Your task to perform on an android device: see tabs open on other devices in the chrome app Image 0: 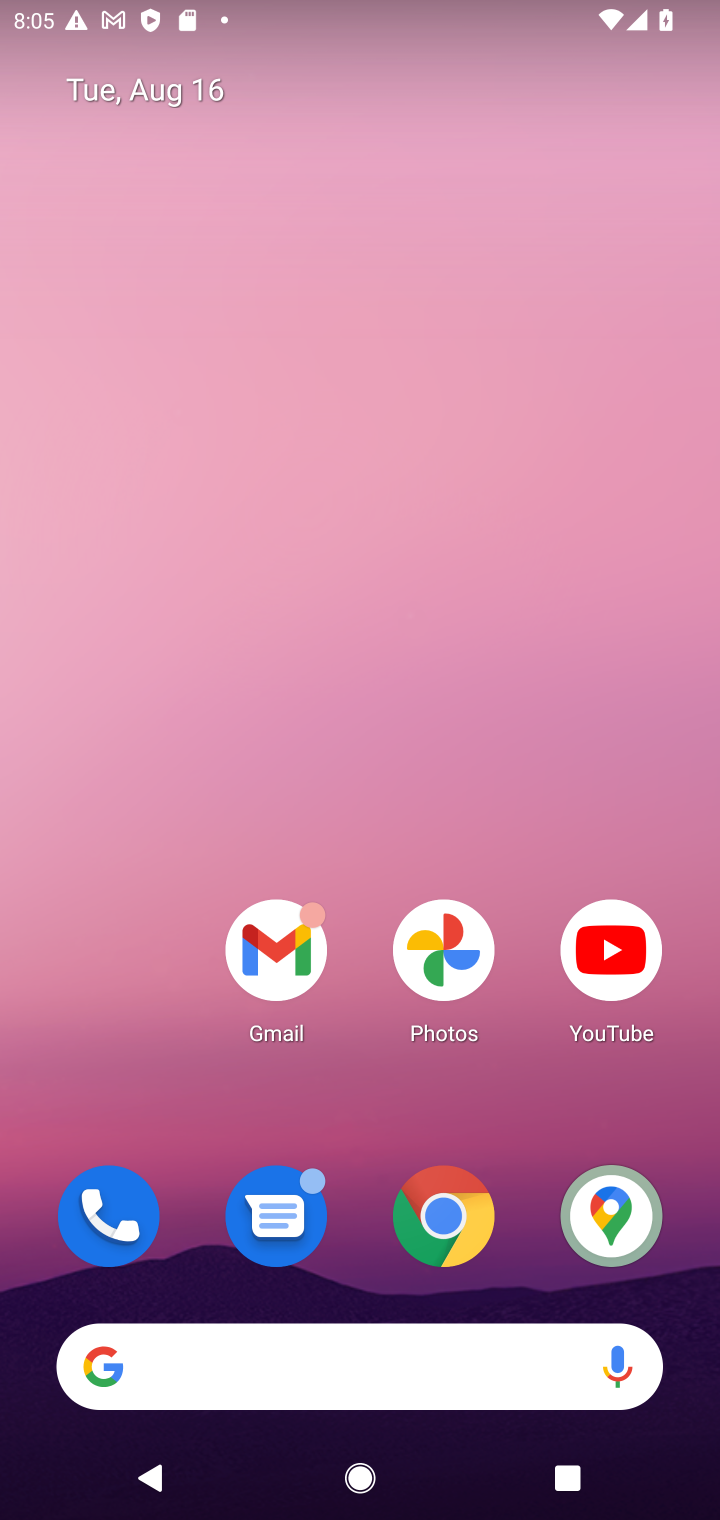
Step 0: click (439, 1242)
Your task to perform on an android device: see tabs open on other devices in the chrome app Image 1: 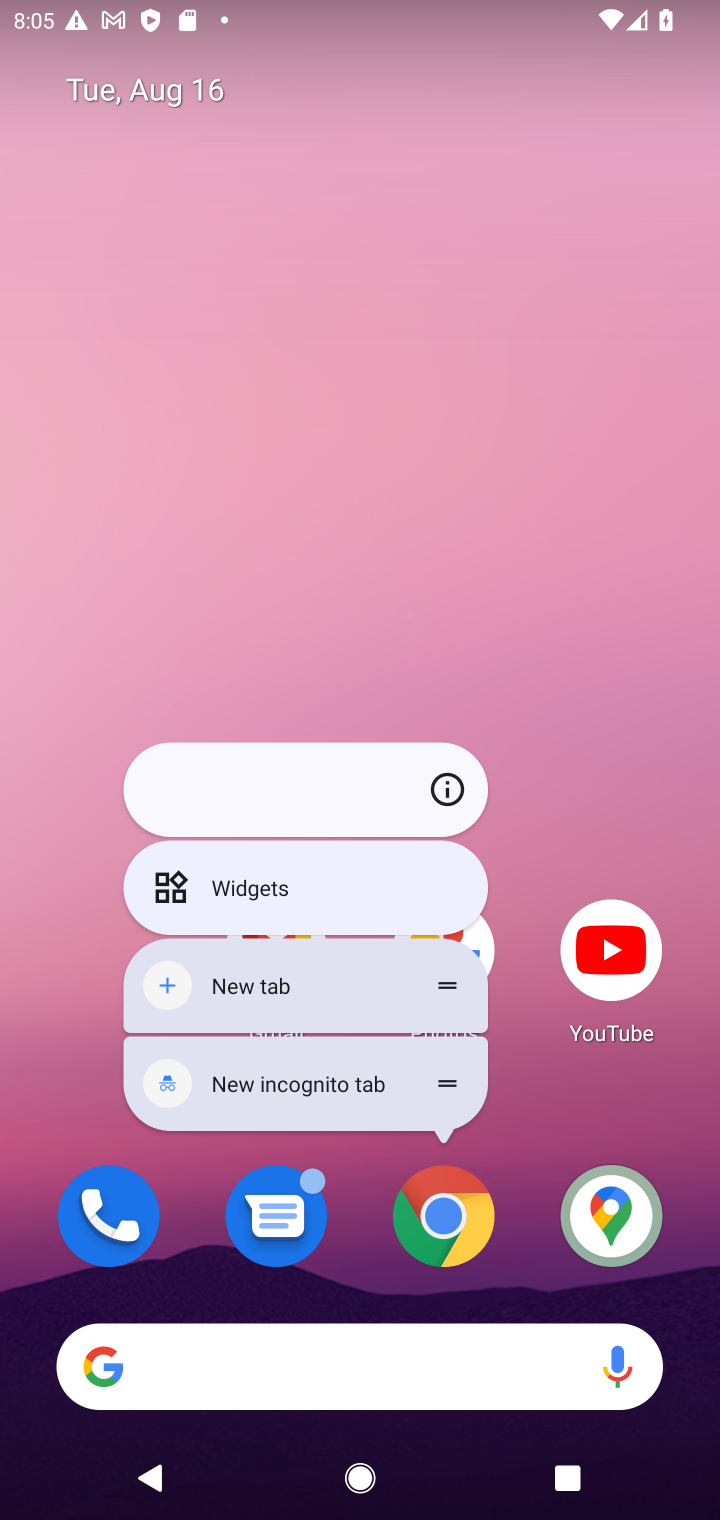
Step 1: click (439, 1242)
Your task to perform on an android device: see tabs open on other devices in the chrome app Image 2: 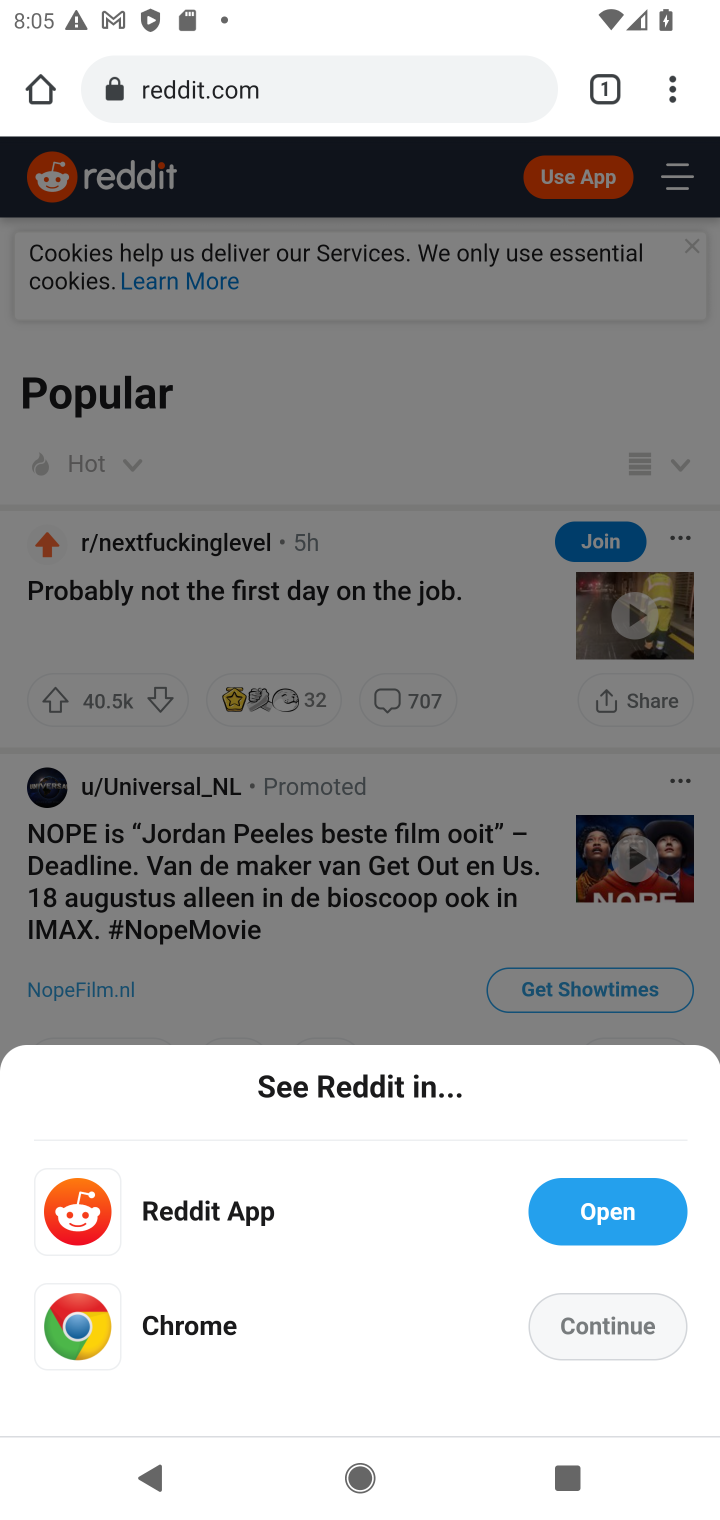
Step 2: click (565, 1330)
Your task to perform on an android device: see tabs open on other devices in the chrome app Image 3: 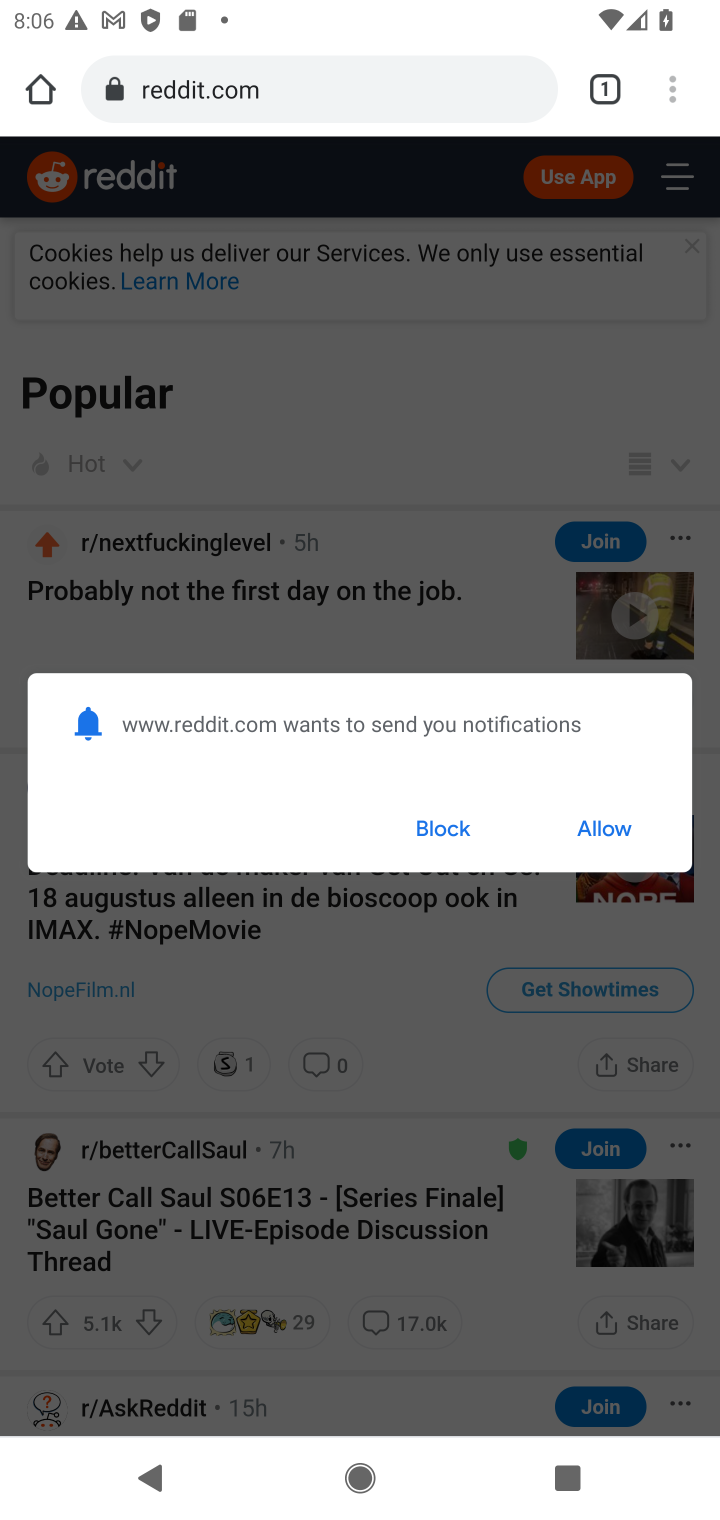
Step 3: click (612, 833)
Your task to perform on an android device: see tabs open on other devices in the chrome app Image 4: 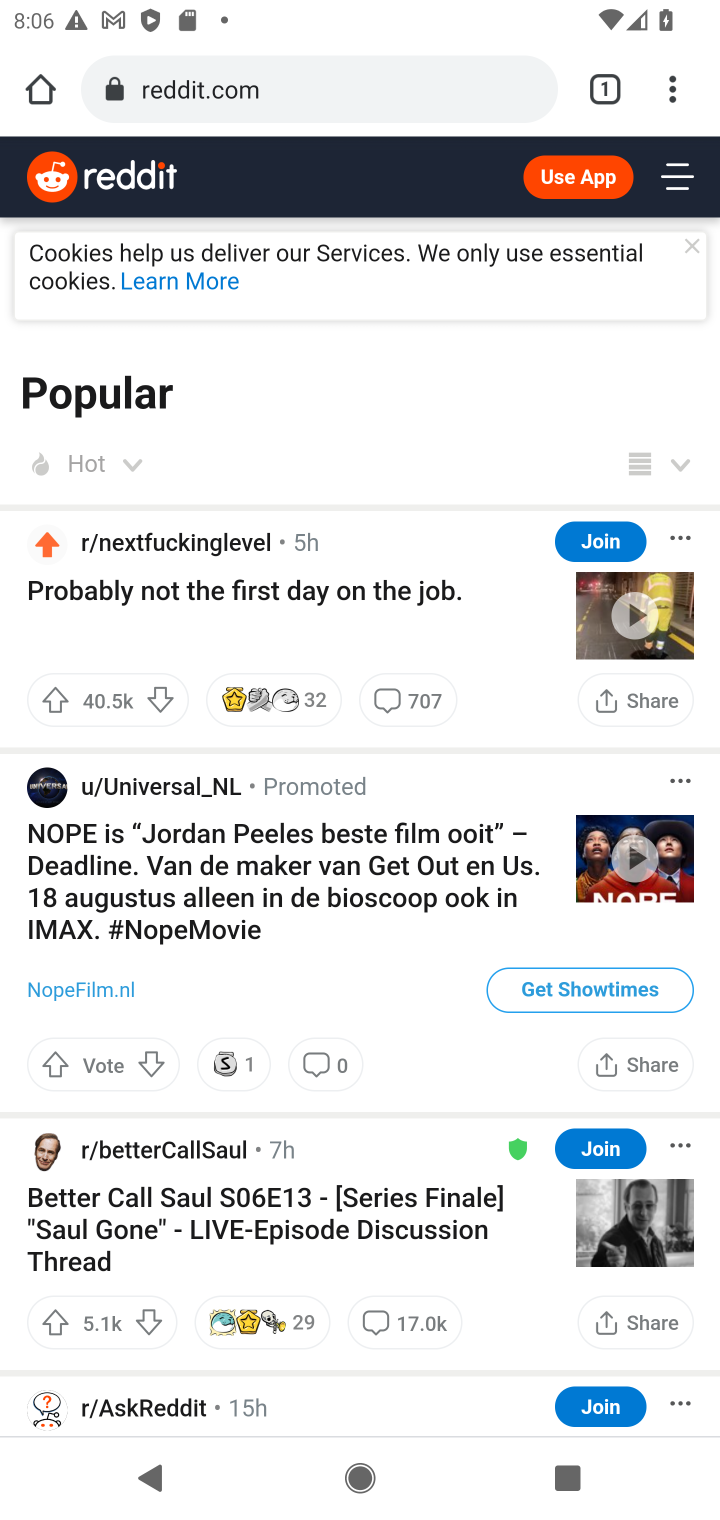
Step 4: click (588, 80)
Your task to perform on an android device: see tabs open on other devices in the chrome app Image 5: 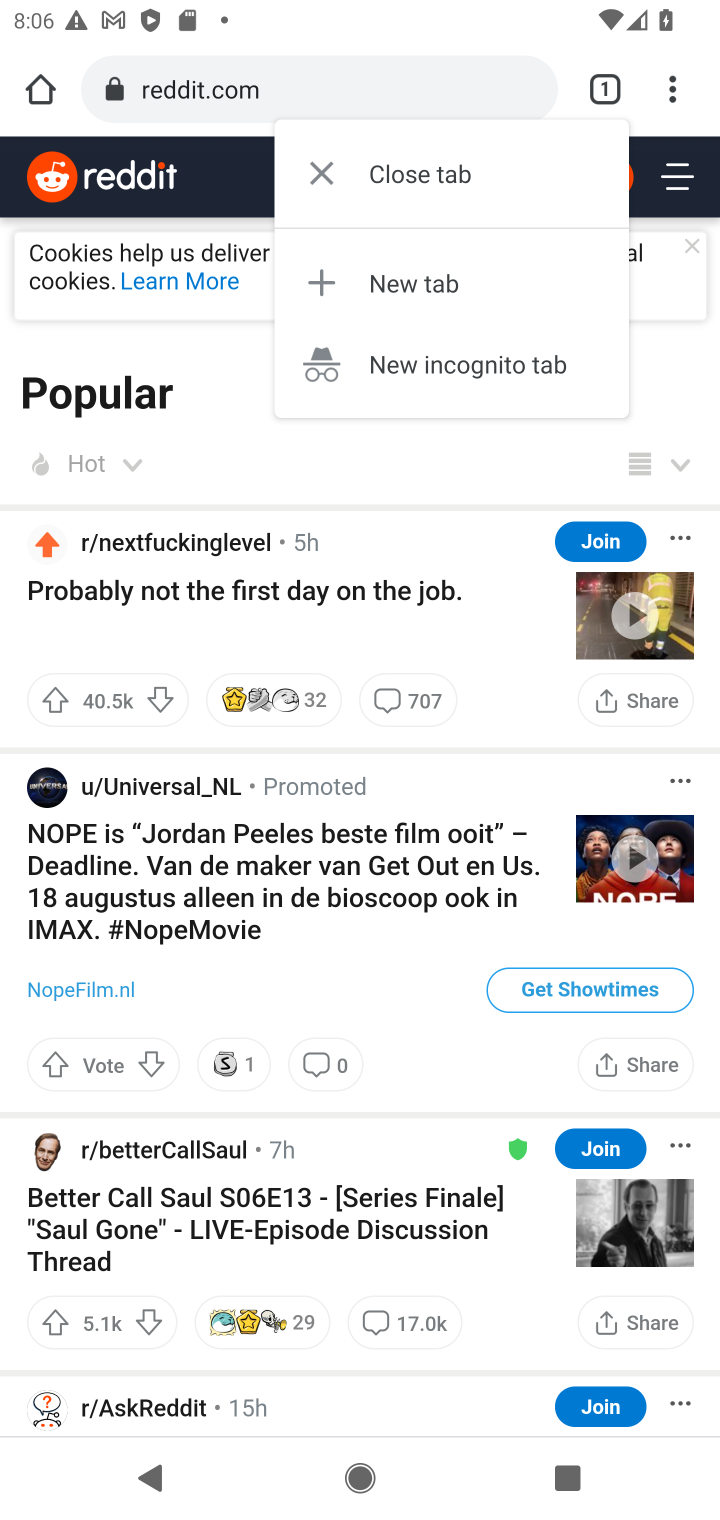
Step 5: task complete